Your task to perform on an android device: Go to notification settings Image 0: 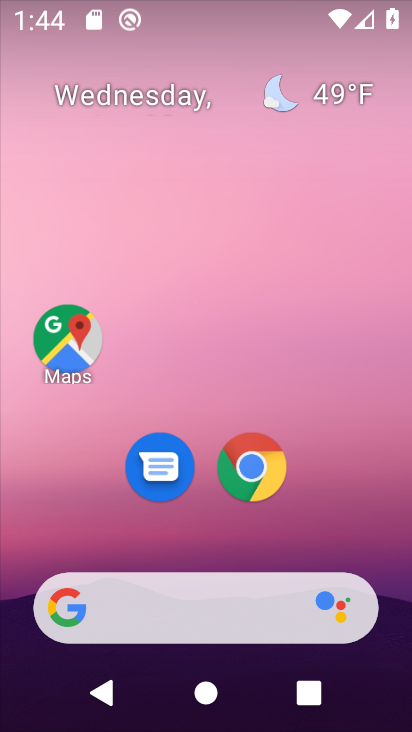
Step 0: drag from (393, 616) to (325, 121)
Your task to perform on an android device: Go to notification settings Image 1: 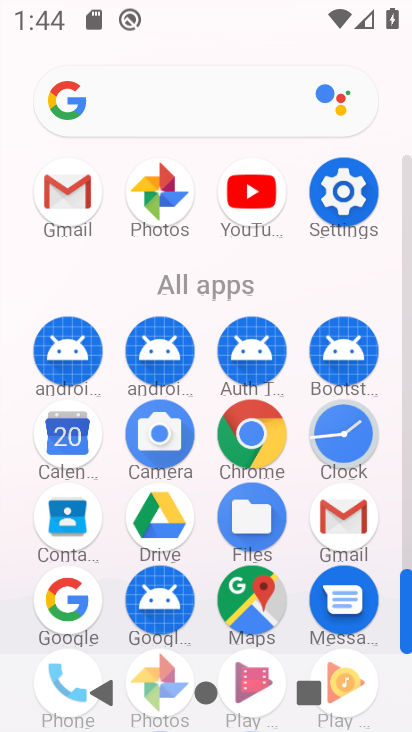
Step 1: drag from (404, 549) to (407, 467)
Your task to perform on an android device: Go to notification settings Image 2: 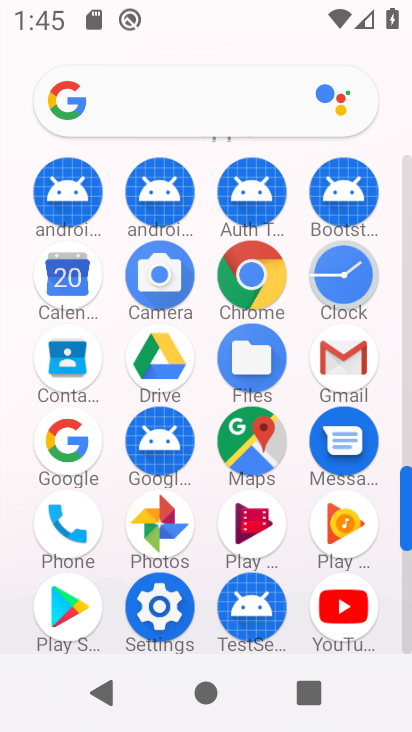
Step 2: click (158, 609)
Your task to perform on an android device: Go to notification settings Image 3: 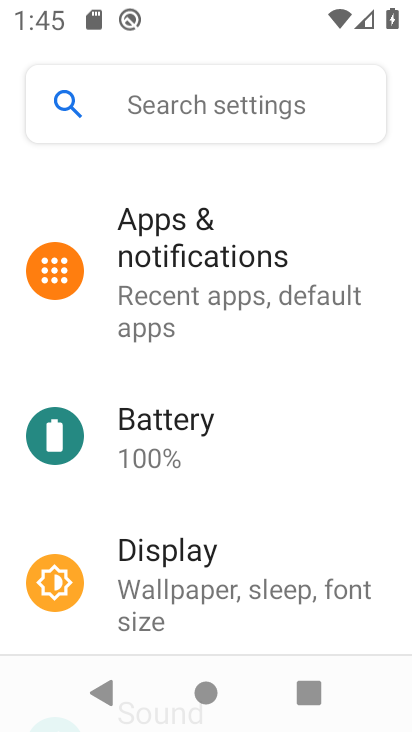
Step 3: click (173, 252)
Your task to perform on an android device: Go to notification settings Image 4: 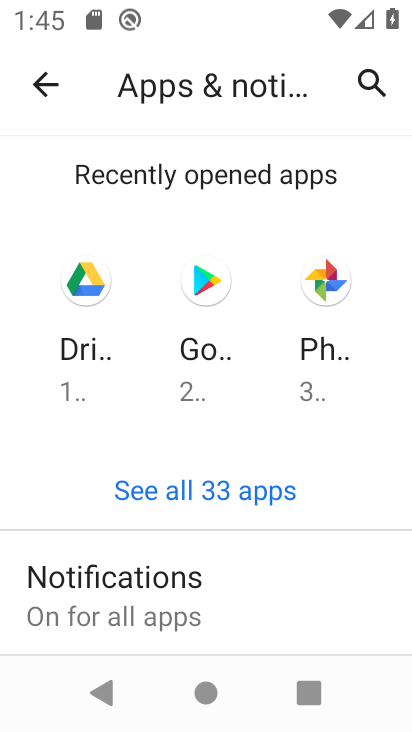
Step 4: click (113, 579)
Your task to perform on an android device: Go to notification settings Image 5: 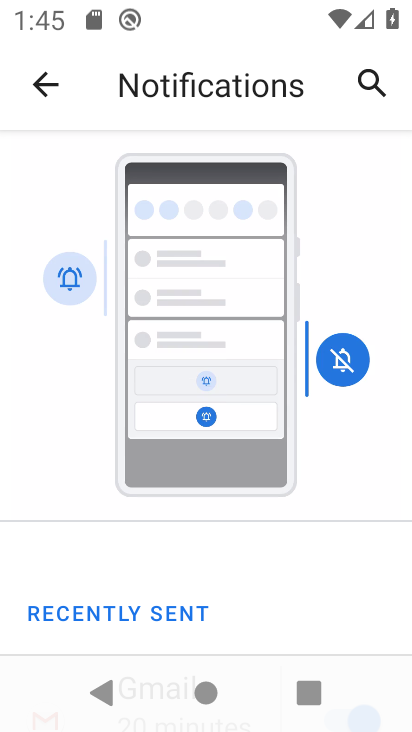
Step 5: drag from (305, 632) to (254, 302)
Your task to perform on an android device: Go to notification settings Image 6: 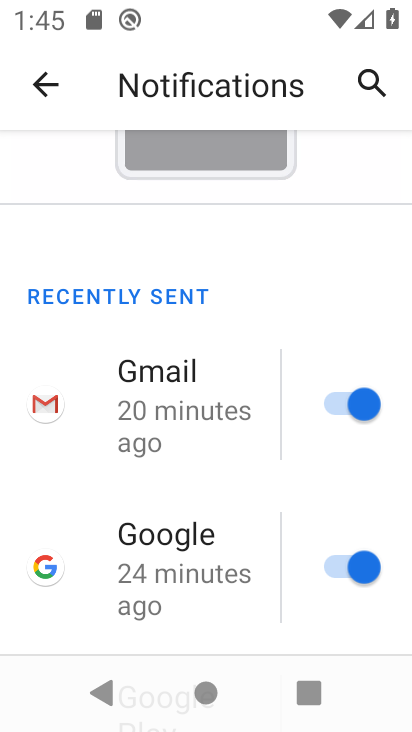
Step 6: drag from (276, 585) to (261, 169)
Your task to perform on an android device: Go to notification settings Image 7: 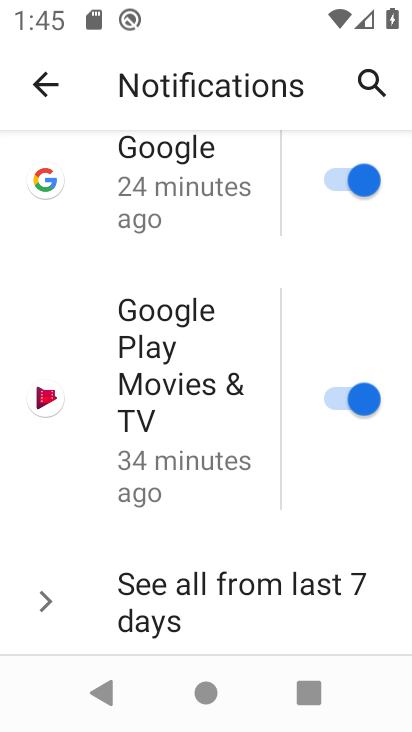
Step 7: drag from (271, 581) to (277, 222)
Your task to perform on an android device: Go to notification settings Image 8: 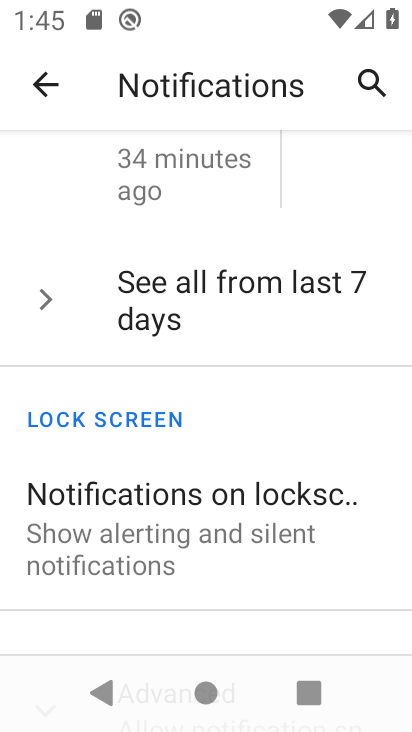
Step 8: drag from (262, 483) to (279, 216)
Your task to perform on an android device: Go to notification settings Image 9: 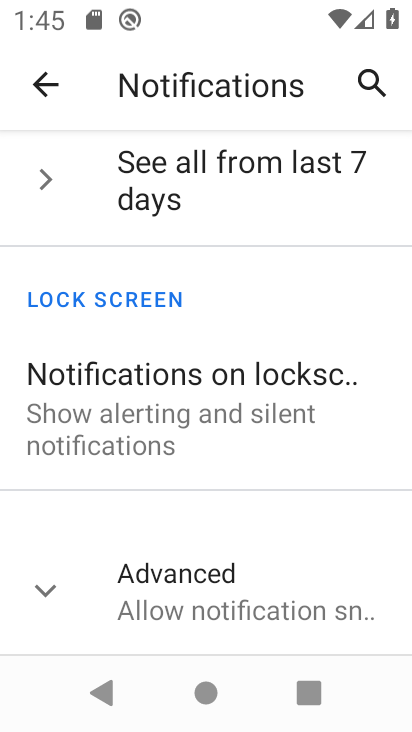
Step 9: click (55, 592)
Your task to perform on an android device: Go to notification settings Image 10: 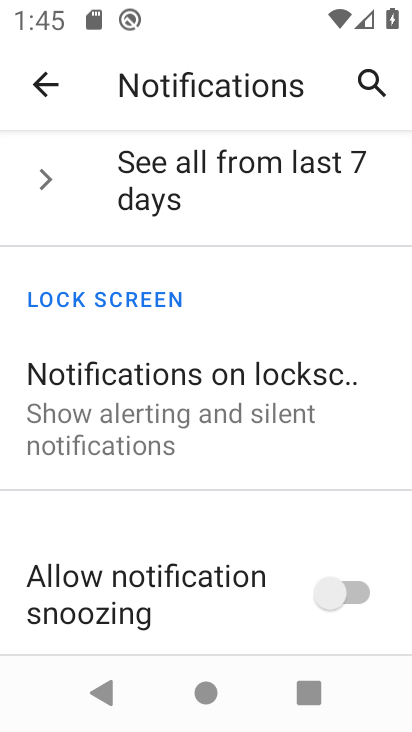
Step 10: task complete